Your task to perform on an android device: What is the recent news? Image 0: 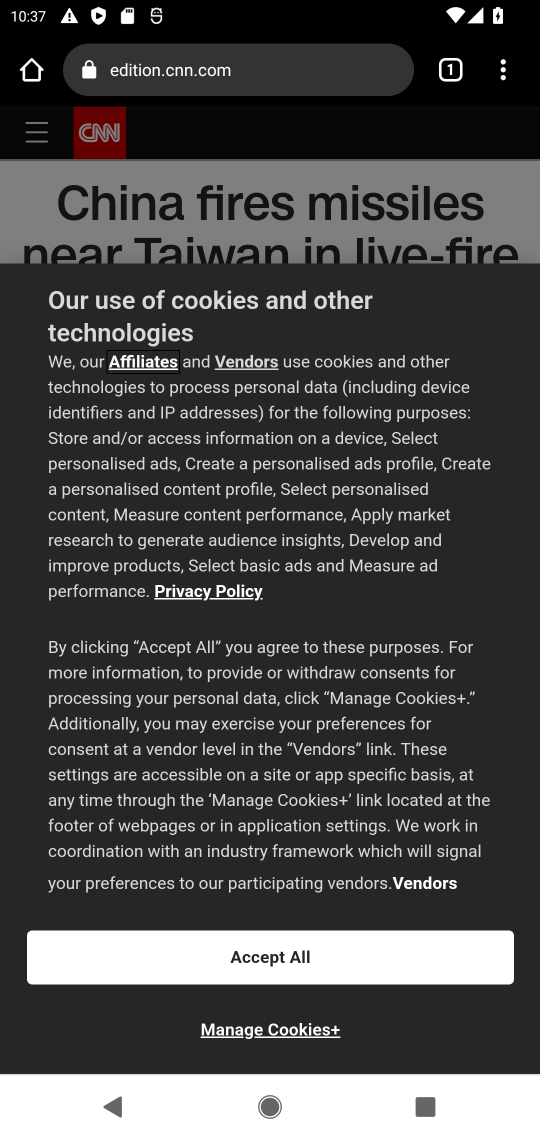
Step 0: click (180, 52)
Your task to perform on an android device: What is the recent news? Image 1: 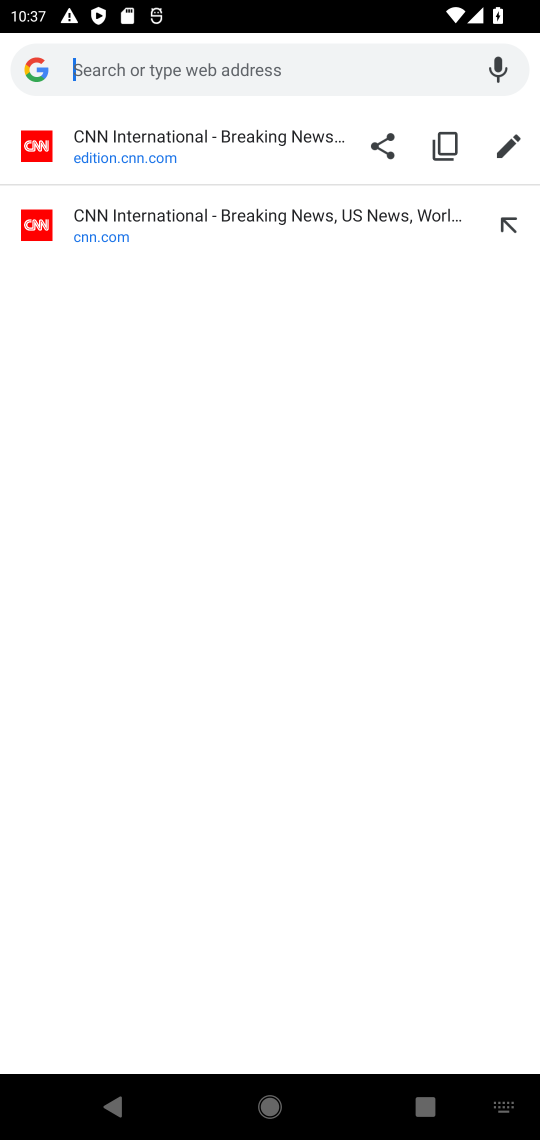
Step 1: type "recent new"
Your task to perform on an android device: What is the recent news? Image 2: 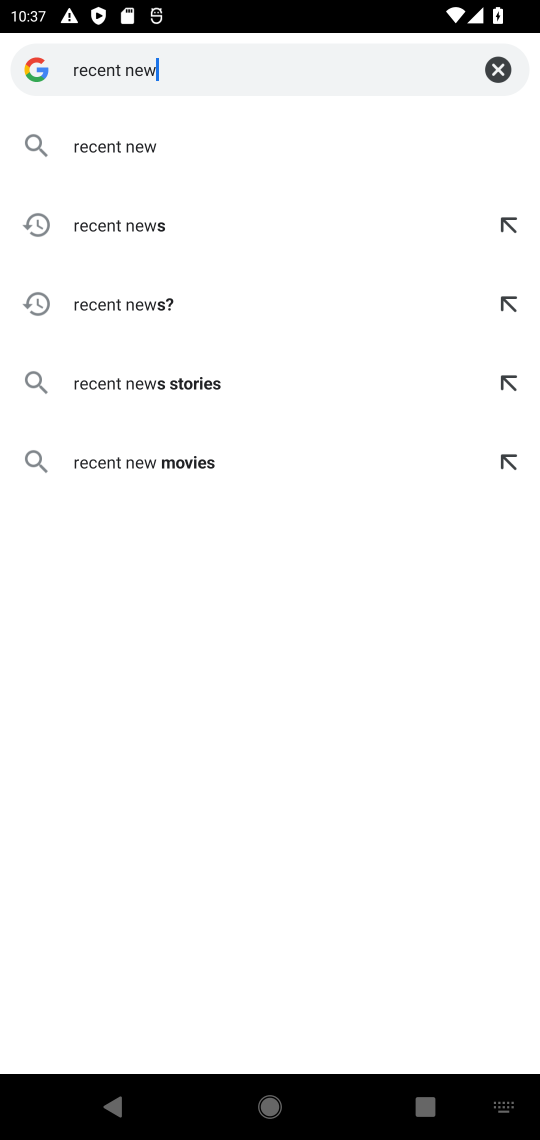
Step 2: type "s"
Your task to perform on an android device: What is the recent news? Image 3: 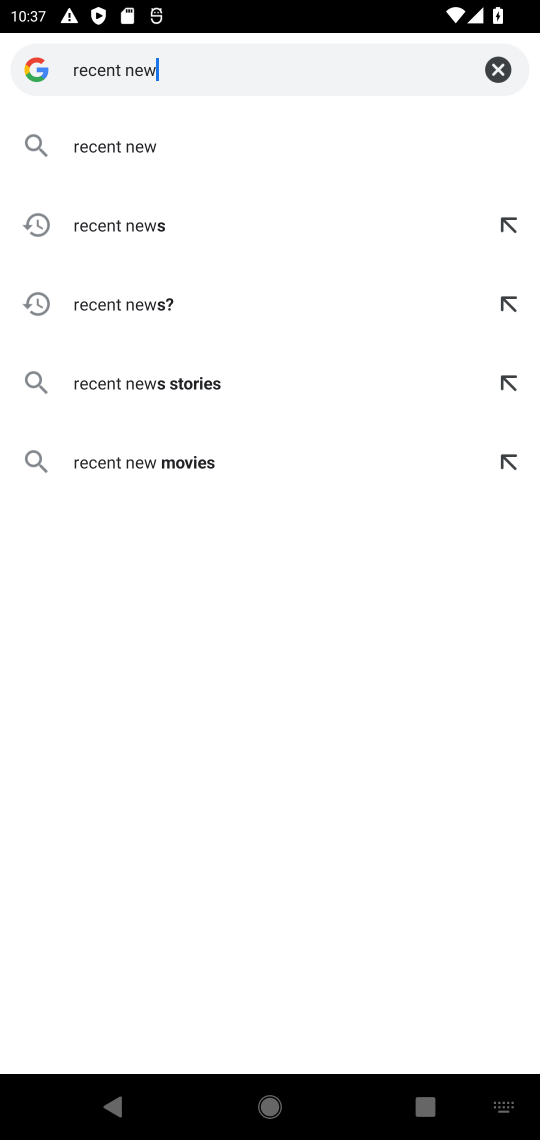
Step 3: click (111, 224)
Your task to perform on an android device: What is the recent news? Image 4: 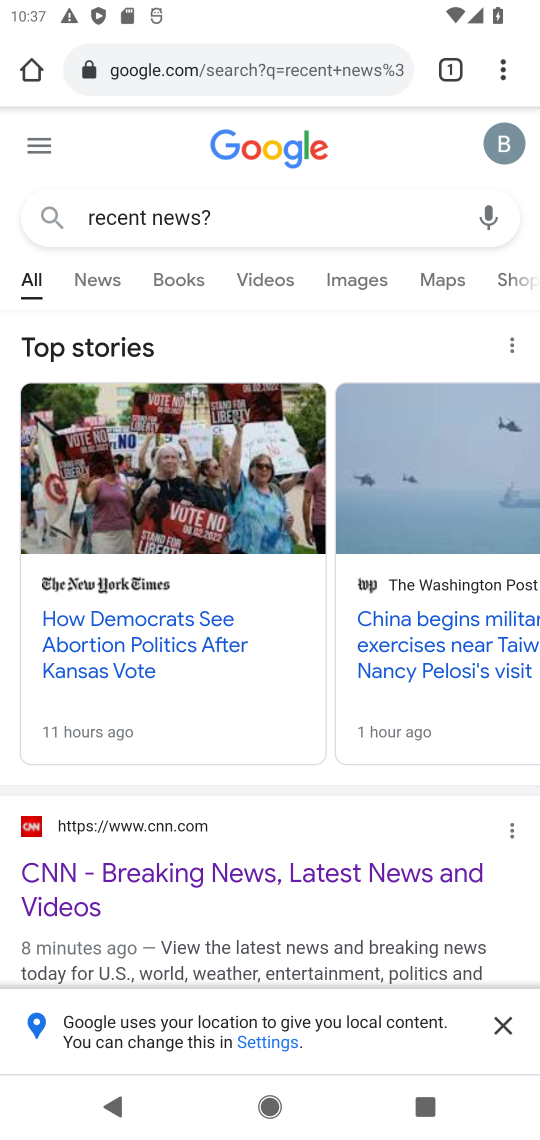
Step 4: task complete